Your task to perform on an android device: turn smart compose on in the gmail app Image 0: 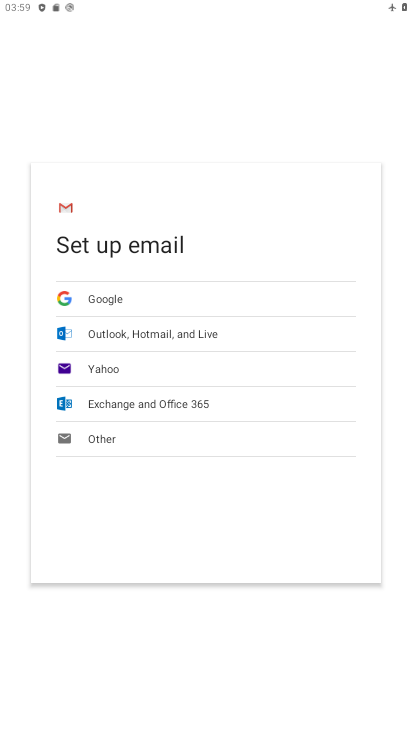
Step 0: press home button
Your task to perform on an android device: turn smart compose on in the gmail app Image 1: 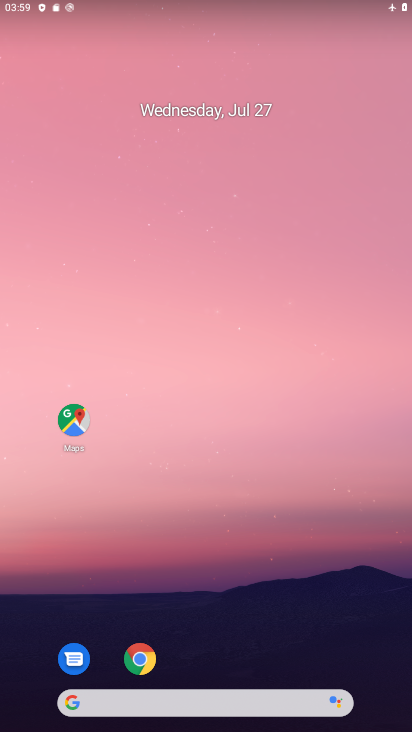
Step 1: drag from (255, 634) to (257, 94)
Your task to perform on an android device: turn smart compose on in the gmail app Image 2: 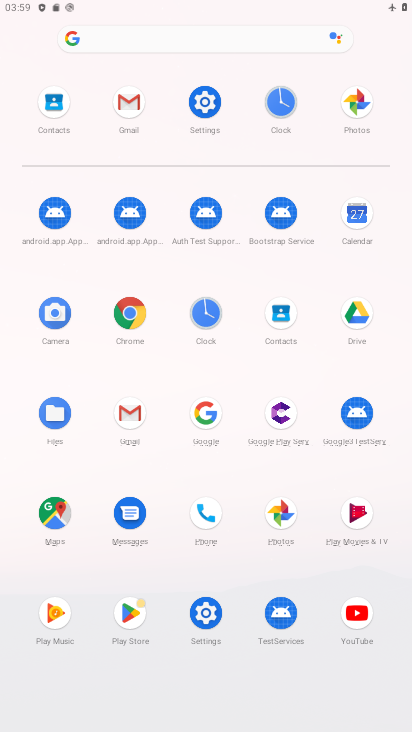
Step 2: click (140, 101)
Your task to perform on an android device: turn smart compose on in the gmail app Image 3: 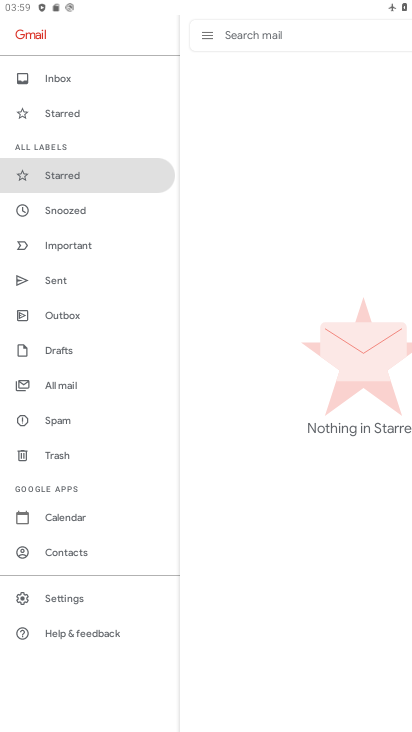
Step 3: click (77, 597)
Your task to perform on an android device: turn smart compose on in the gmail app Image 4: 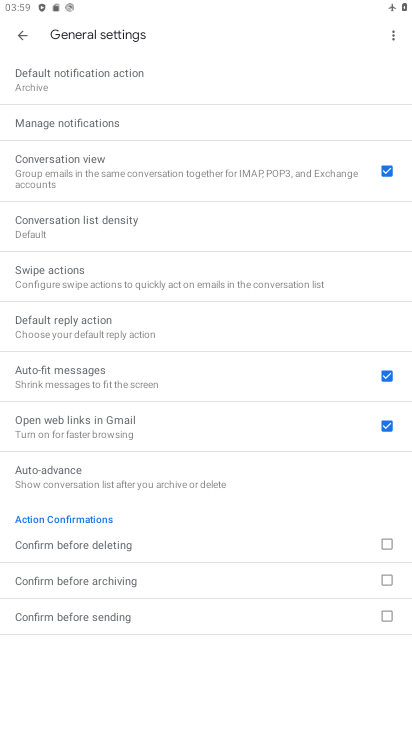
Step 4: drag from (133, 532) to (152, 293)
Your task to perform on an android device: turn smart compose on in the gmail app Image 5: 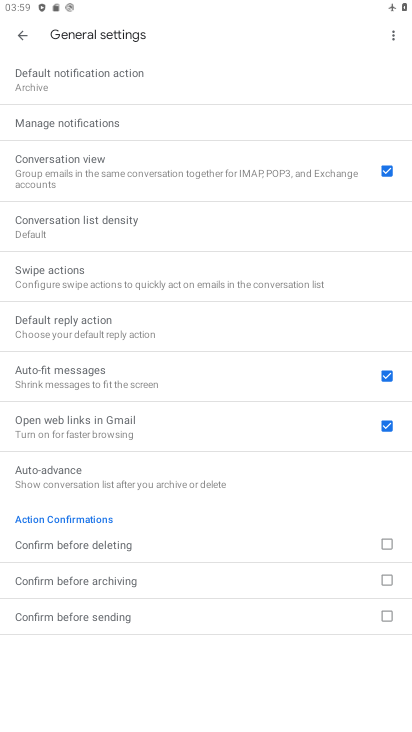
Step 5: drag from (148, 240) to (143, 540)
Your task to perform on an android device: turn smart compose on in the gmail app Image 6: 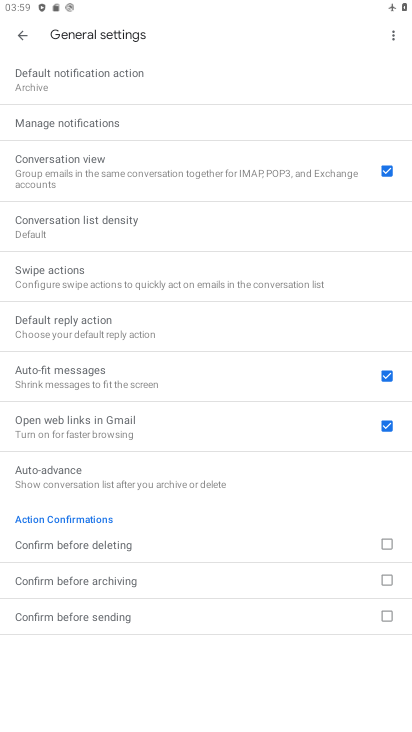
Step 6: click (18, 40)
Your task to perform on an android device: turn smart compose on in the gmail app Image 7: 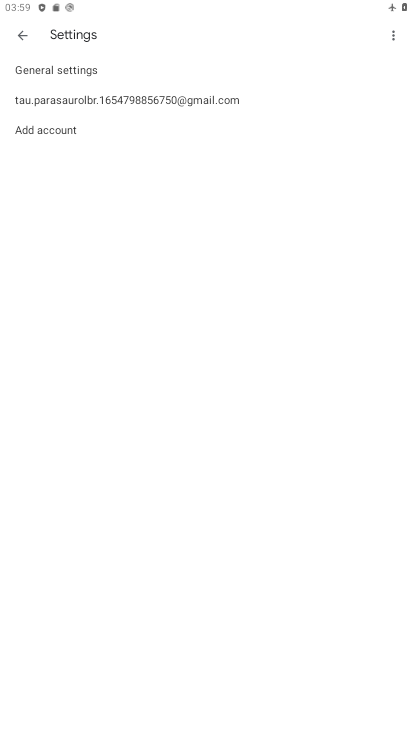
Step 7: click (28, 100)
Your task to perform on an android device: turn smart compose on in the gmail app Image 8: 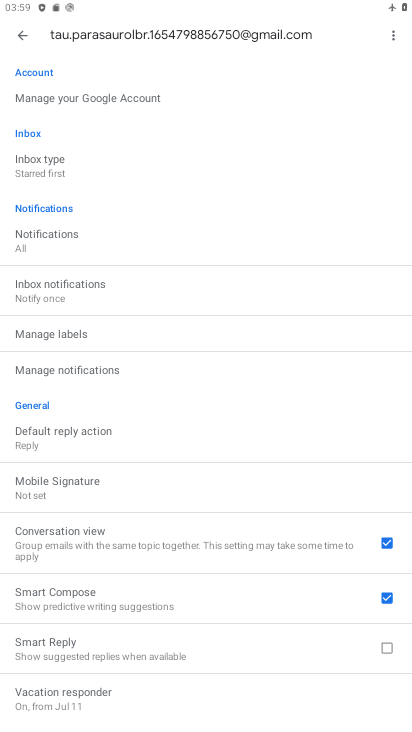
Step 8: task complete